Your task to perform on an android device: Open Maps and search for coffee Image 0: 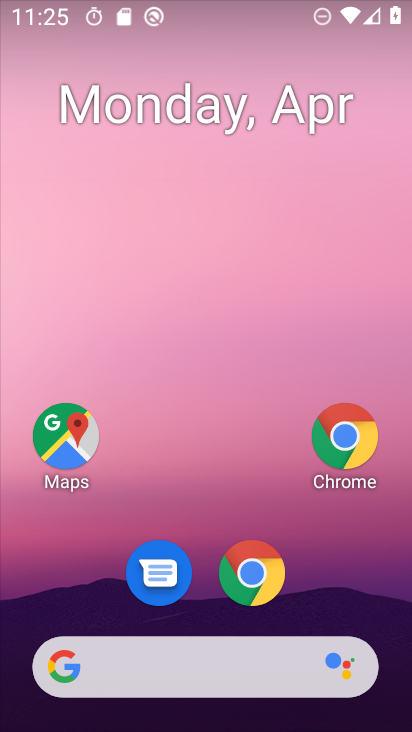
Step 0: click (92, 445)
Your task to perform on an android device: Open Maps and search for coffee Image 1: 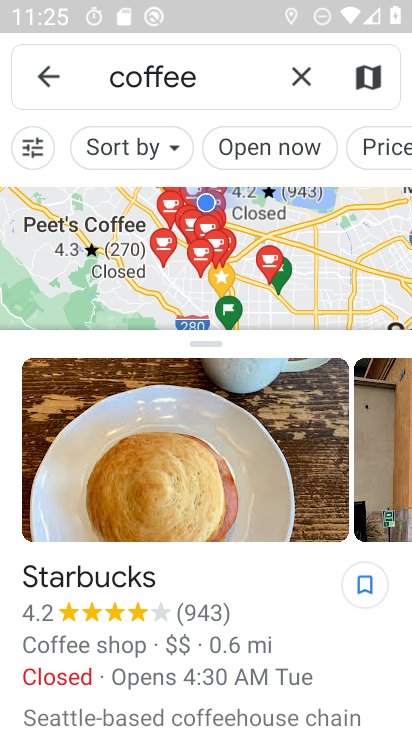
Step 1: task complete